Your task to perform on an android device: Open the map Image 0: 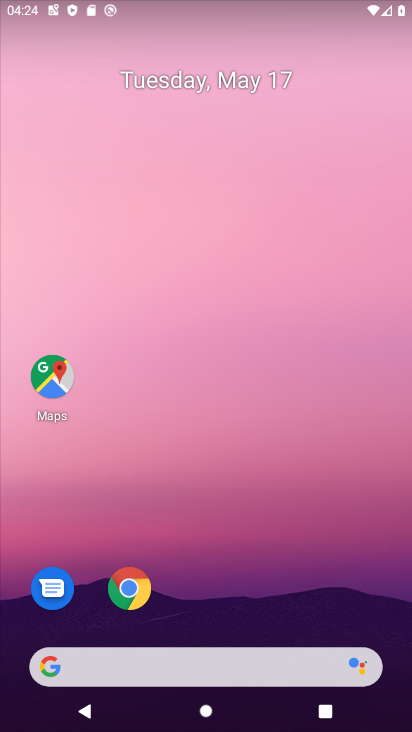
Step 0: click (50, 380)
Your task to perform on an android device: Open the map Image 1: 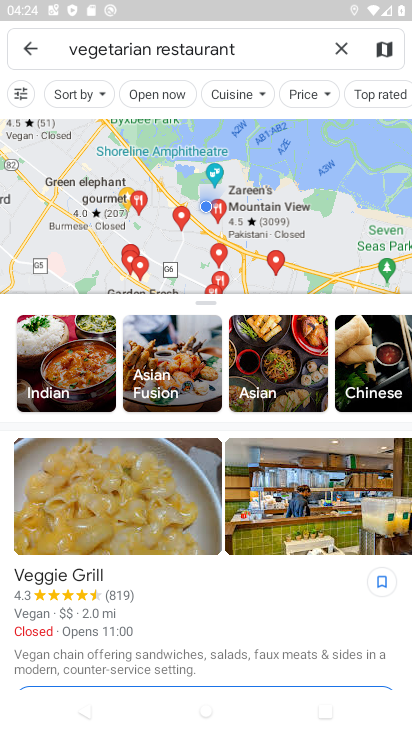
Step 1: task complete